Your task to perform on an android device: Go to Google Image 0: 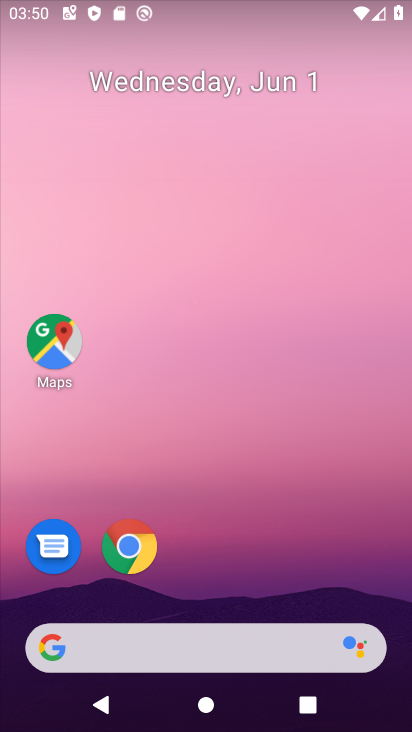
Step 0: drag from (364, 576) to (326, 157)
Your task to perform on an android device: Go to Google Image 1: 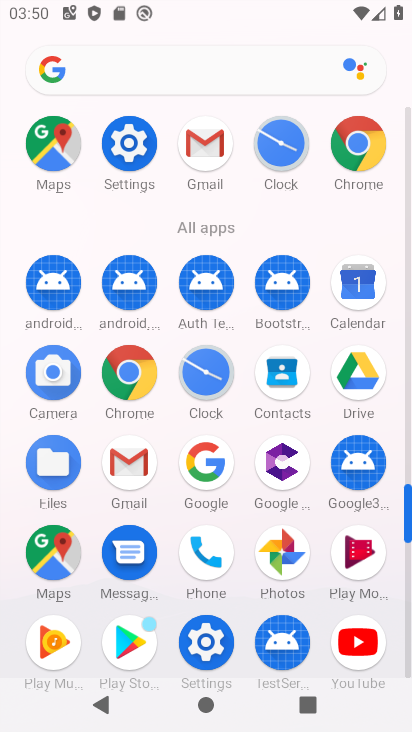
Step 1: click (204, 463)
Your task to perform on an android device: Go to Google Image 2: 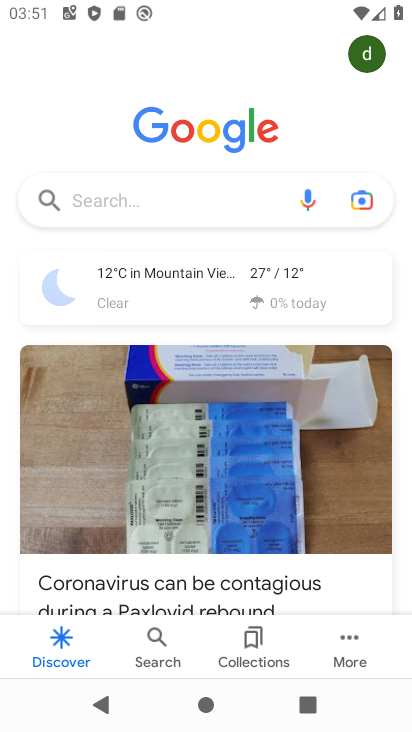
Step 2: task complete